Your task to perform on an android device: open a bookmark in the chrome app Image 0: 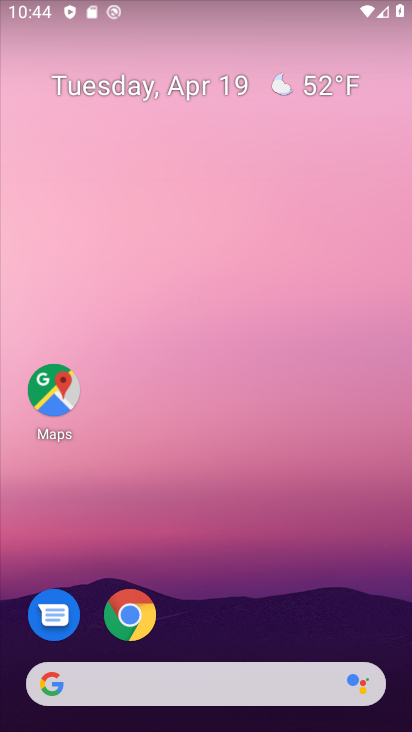
Step 0: click (127, 603)
Your task to perform on an android device: open a bookmark in the chrome app Image 1: 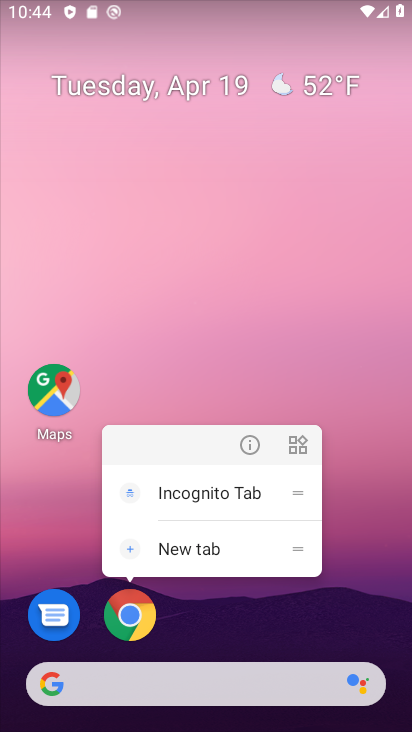
Step 1: click (127, 603)
Your task to perform on an android device: open a bookmark in the chrome app Image 2: 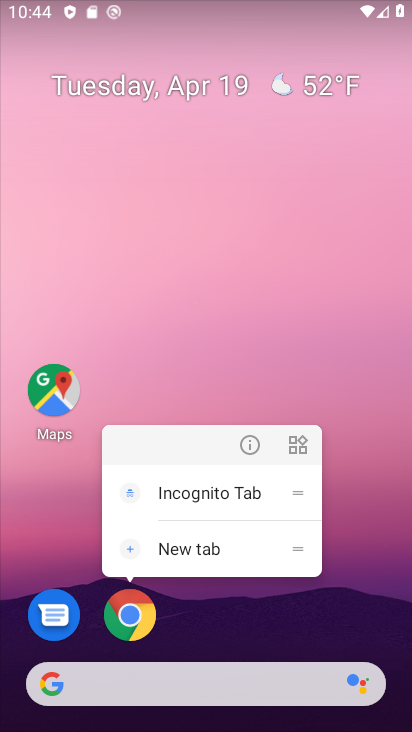
Step 2: click (125, 619)
Your task to perform on an android device: open a bookmark in the chrome app Image 3: 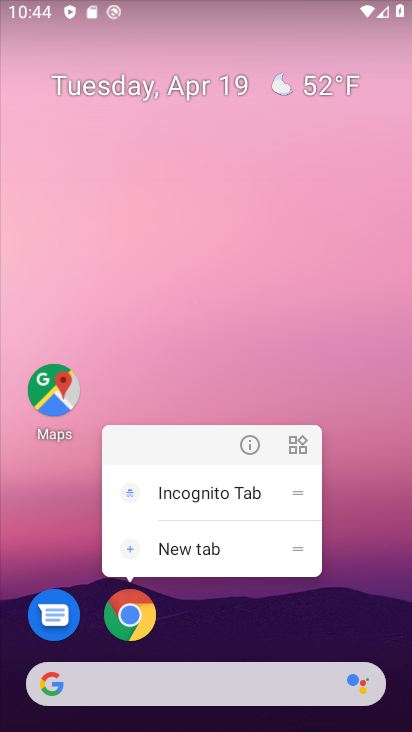
Step 3: click (125, 619)
Your task to perform on an android device: open a bookmark in the chrome app Image 4: 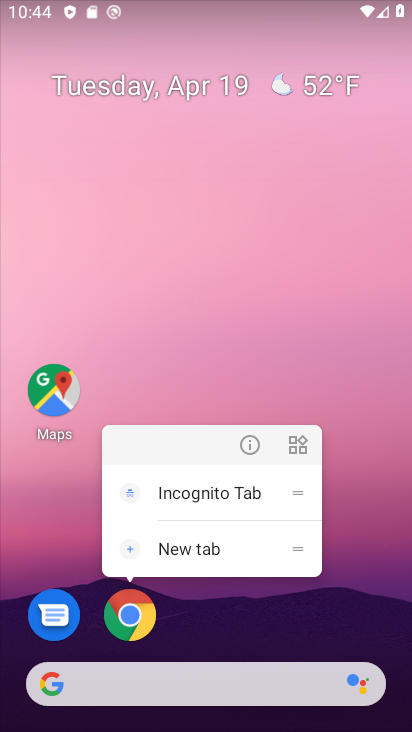
Step 4: click (125, 619)
Your task to perform on an android device: open a bookmark in the chrome app Image 5: 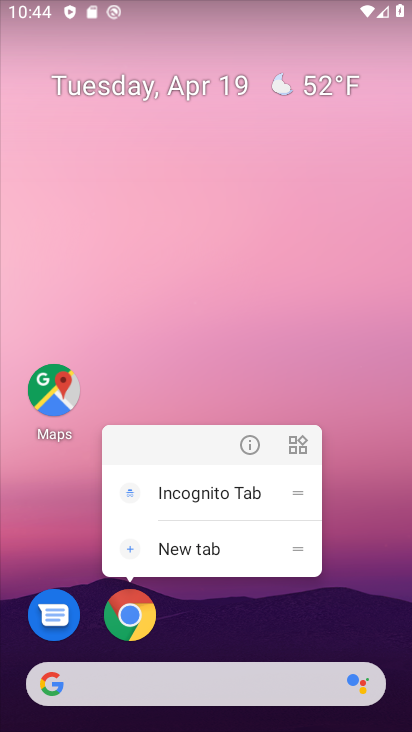
Step 5: click (125, 619)
Your task to perform on an android device: open a bookmark in the chrome app Image 6: 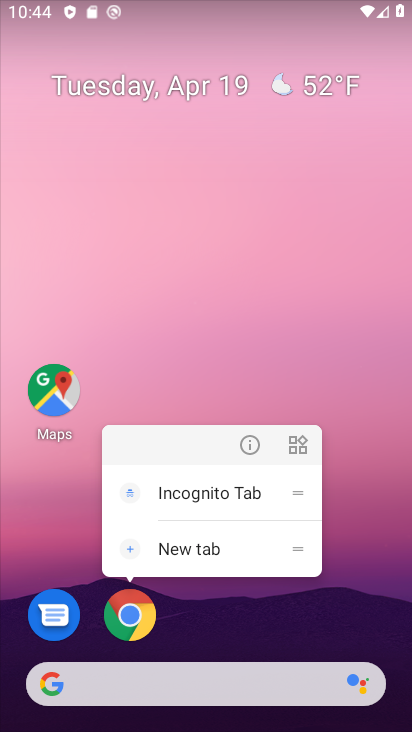
Step 6: click (125, 619)
Your task to perform on an android device: open a bookmark in the chrome app Image 7: 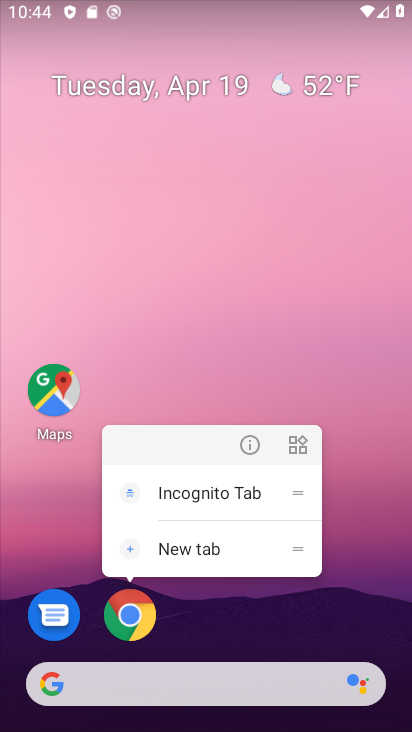
Step 7: click (125, 619)
Your task to perform on an android device: open a bookmark in the chrome app Image 8: 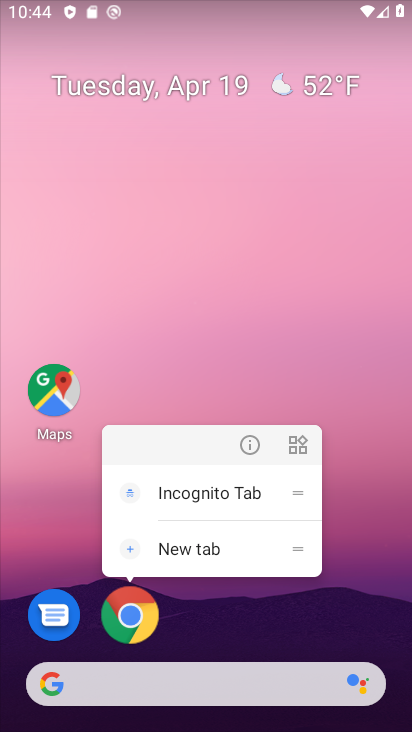
Step 8: click (125, 619)
Your task to perform on an android device: open a bookmark in the chrome app Image 9: 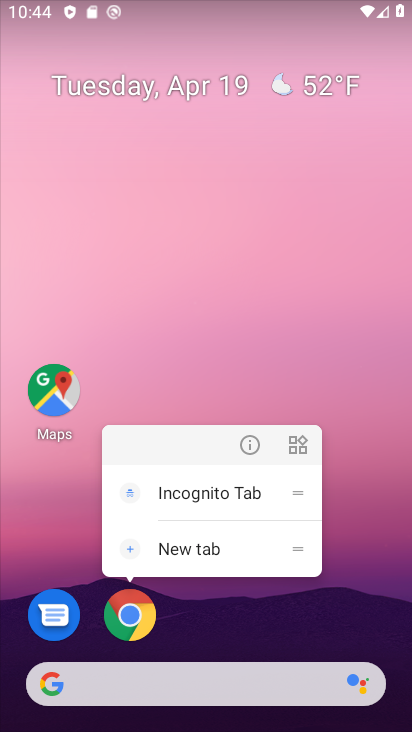
Step 9: click (125, 619)
Your task to perform on an android device: open a bookmark in the chrome app Image 10: 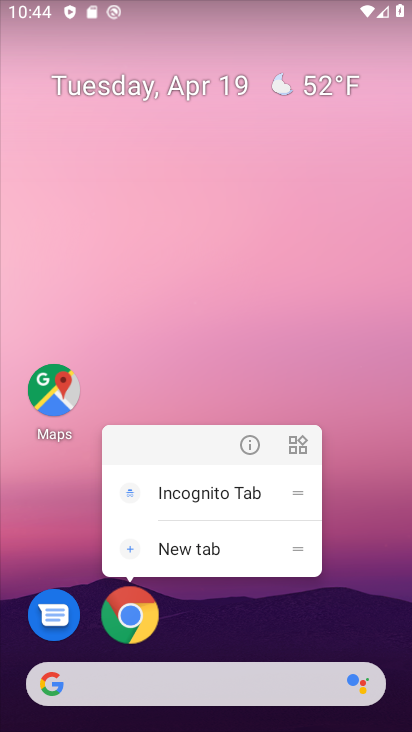
Step 10: click (125, 619)
Your task to perform on an android device: open a bookmark in the chrome app Image 11: 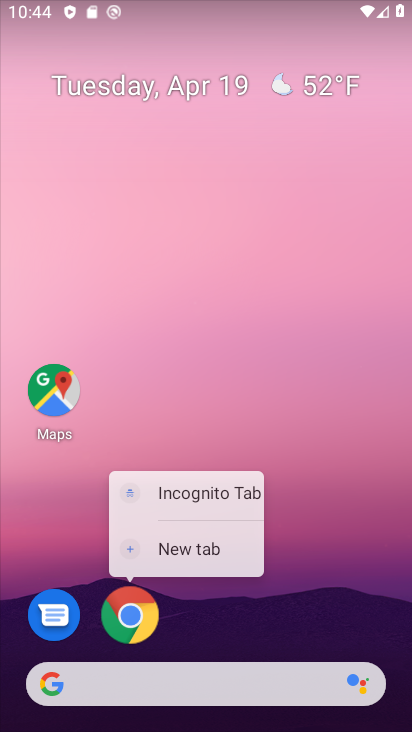
Step 11: click (125, 619)
Your task to perform on an android device: open a bookmark in the chrome app Image 12: 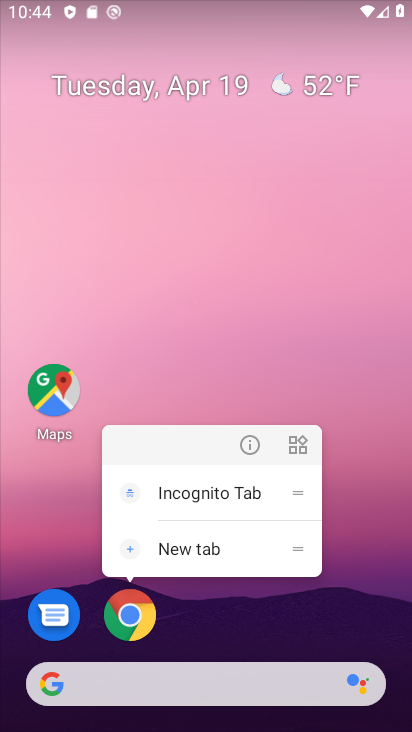
Step 12: click (125, 619)
Your task to perform on an android device: open a bookmark in the chrome app Image 13: 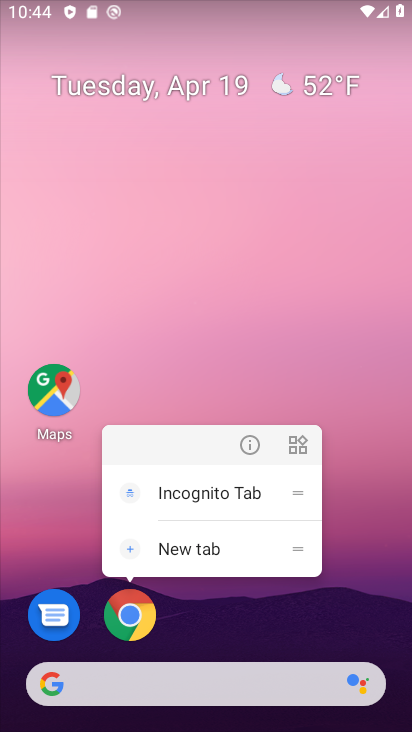
Step 13: click (125, 619)
Your task to perform on an android device: open a bookmark in the chrome app Image 14: 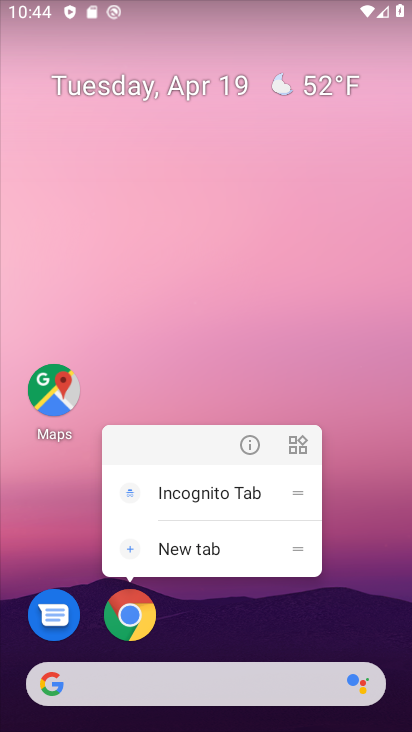
Step 14: click (125, 619)
Your task to perform on an android device: open a bookmark in the chrome app Image 15: 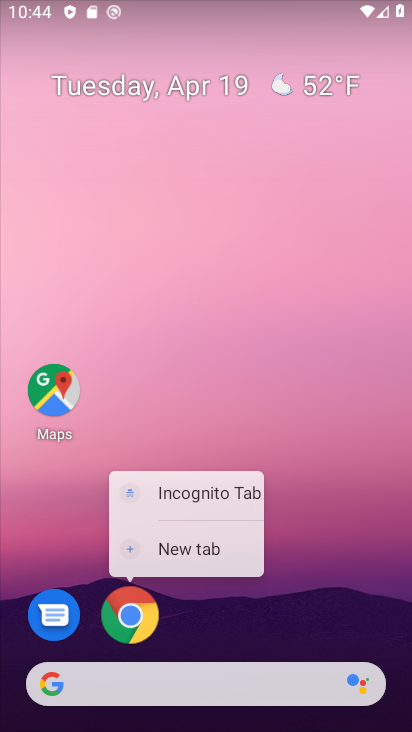
Step 15: click (125, 619)
Your task to perform on an android device: open a bookmark in the chrome app Image 16: 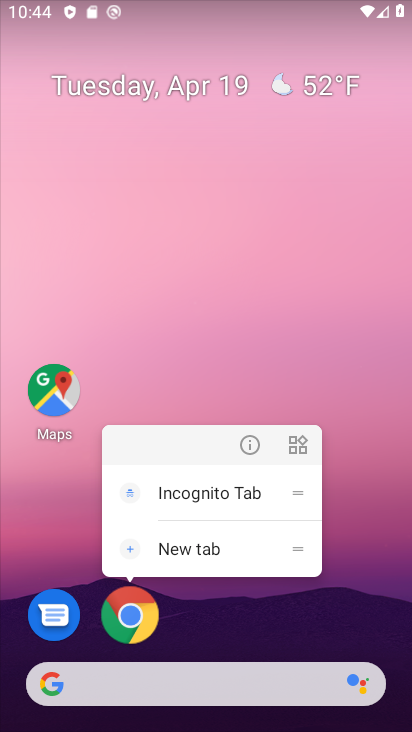
Step 16: click (125, 619)
Your task to perform on an android device: open a bookmark in the chrome app Image 17: 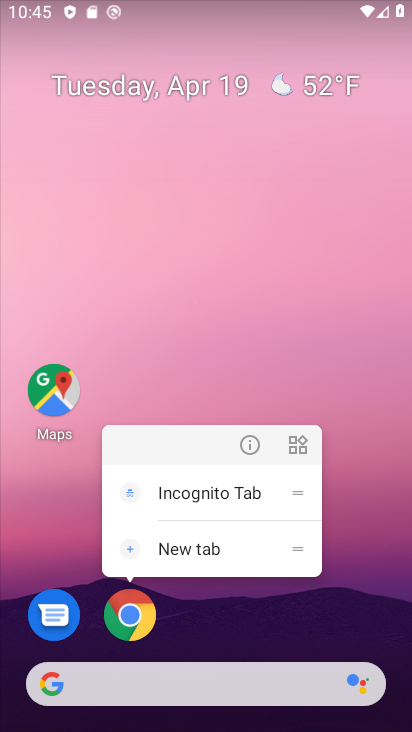
Step 17: click (125, 619)
Your task to perform on an android device: open a bookmark in the chrome app Image 18: 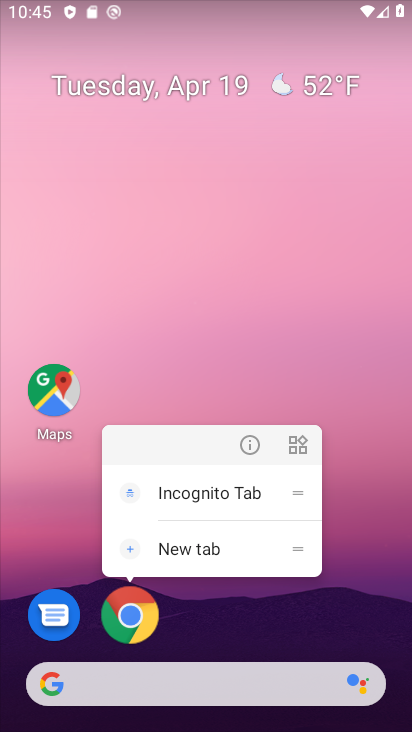
Step 18: click (125, 619)
Your task to perform on an android device: open a bookmark in the chrome app Image 19: 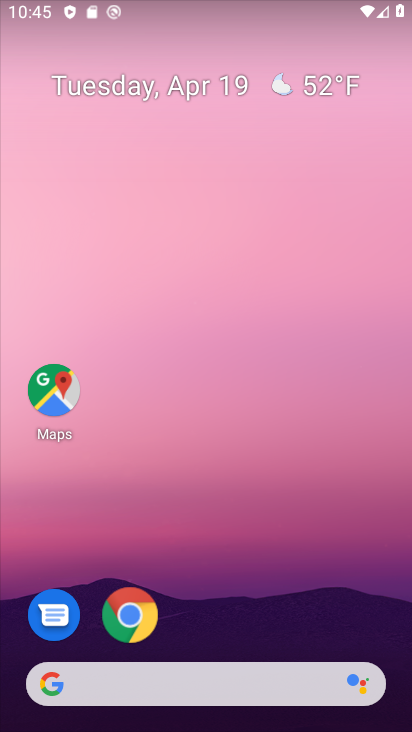
Step 19: click (125, 619)
Your task to perform on an android device: open a bookmark in the chrome app Image 20: 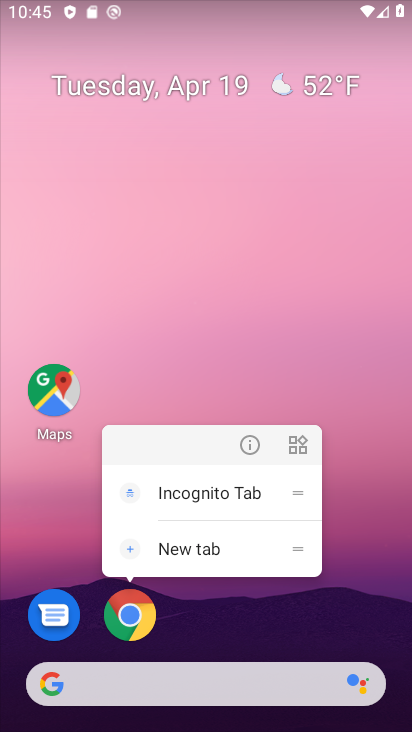
Step 20: click (125, 619)
Your task to perform on an android device: open a bookmark in the chrome app Image 21: 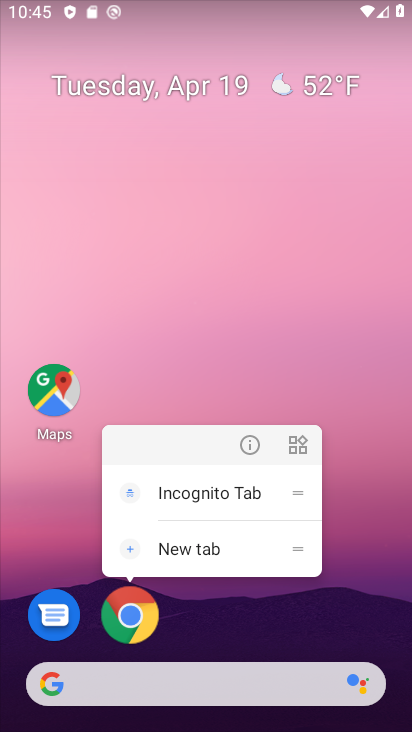
Step 21: click (125, 619)
Your task to perform on an android device: open a bookmark in the chrome app Image 22: 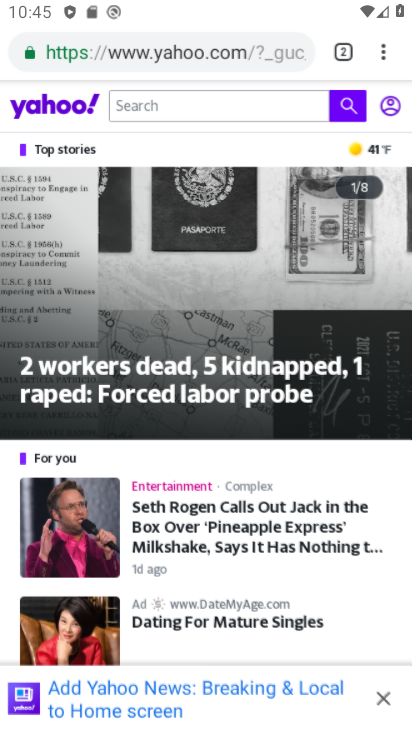
Step 22: click (125, 619)
Your task to perform on an android device: open a bookmark in the chrome app Image 23: 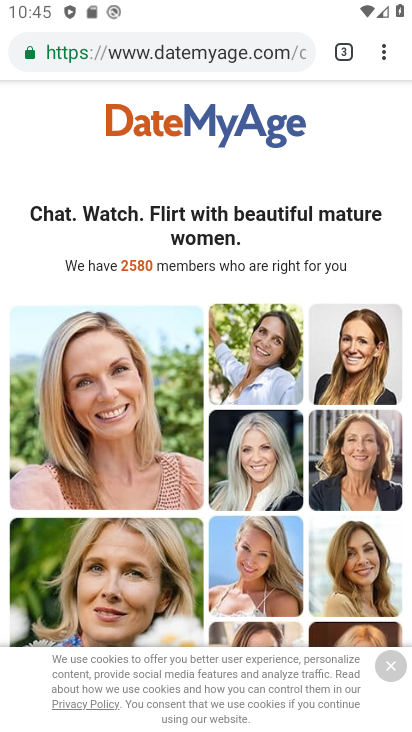
Step 23: click (381, 42)
Your task to perform on an android device: open a bookmark in the chrome app Image 24: 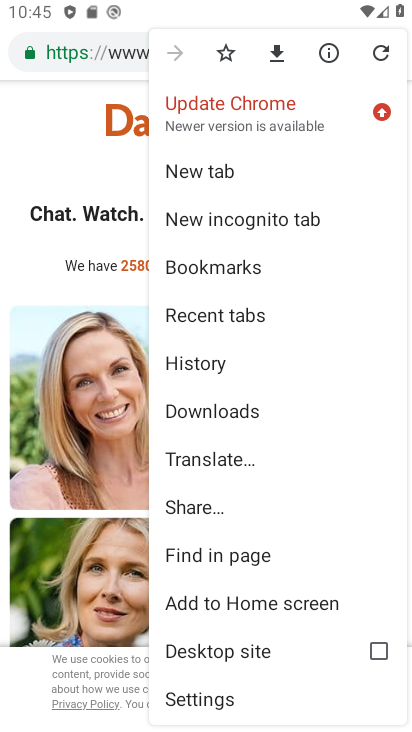
Step 24: click (63, 153)
Your task to perform on an android device: open a bookmark in the chrome app Image 25: 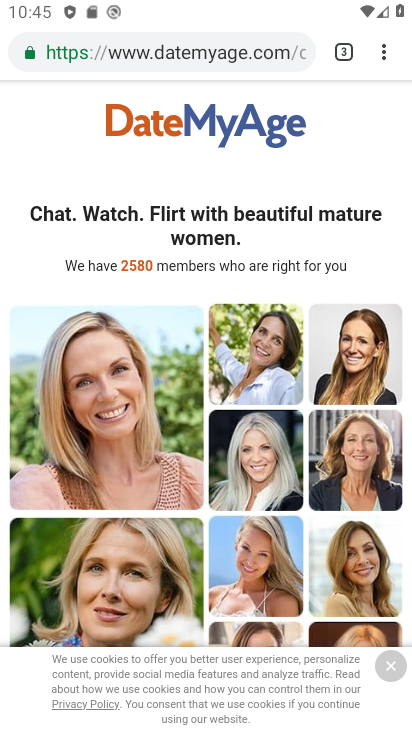
Step 25: click (384, 49)
Your task to perform on an android device: open a bookmark in the chrome app Image 26: 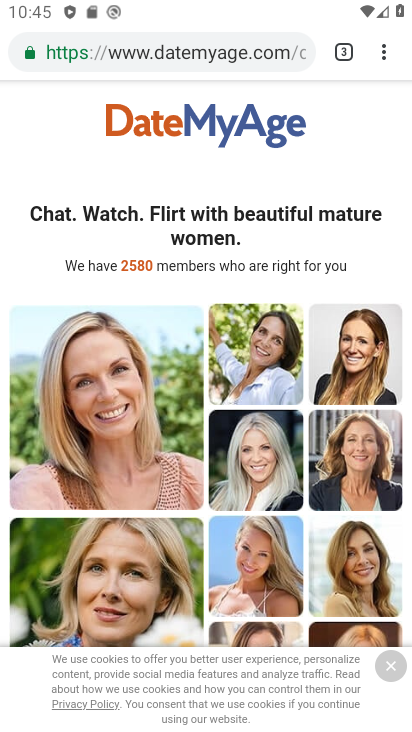
Step 26: click (381, 47)
Your task to perform on an android device: open a bookmark in the chrome app Image 27: 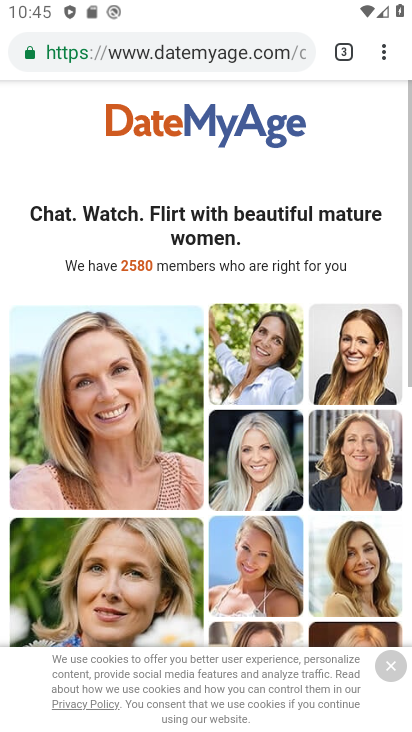
Step 27: click (381, 55)
Your task to perform on an android device: open a bookmark in the chrome app Image 28: 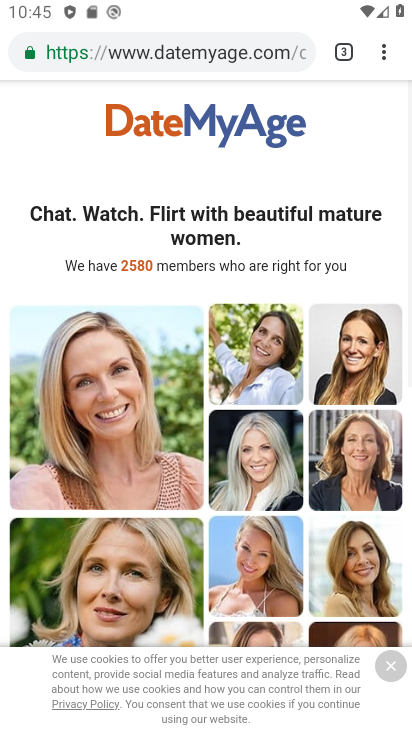
Step 28: click (381, 55)
Your task to perform on an android device: open a bookmark in the chrome app Image 29: 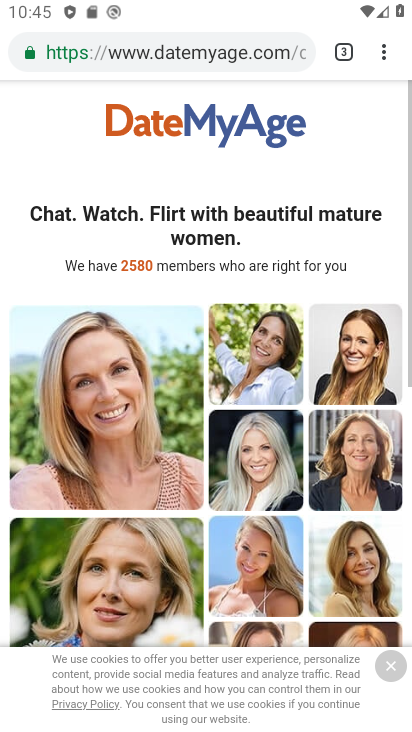
Step 29: click (393, 53)
Your task to perform on an android device: open a bookmark in the chrome app Image 30: 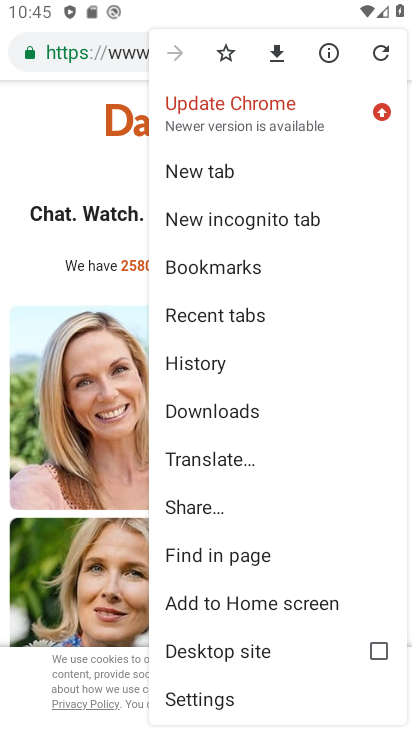
Step 30: click (227, 50)
Your task to perform on an android device: open a bookmark in the chrome app Image 31: 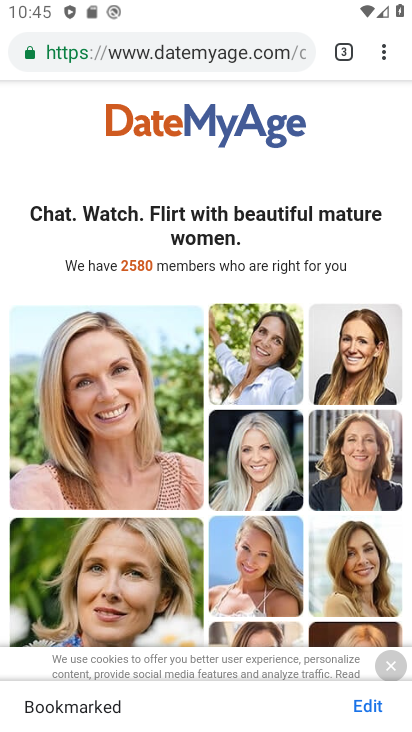
Step 31: task complete